Your task to perform on an android device: change notifications settings Image 0: 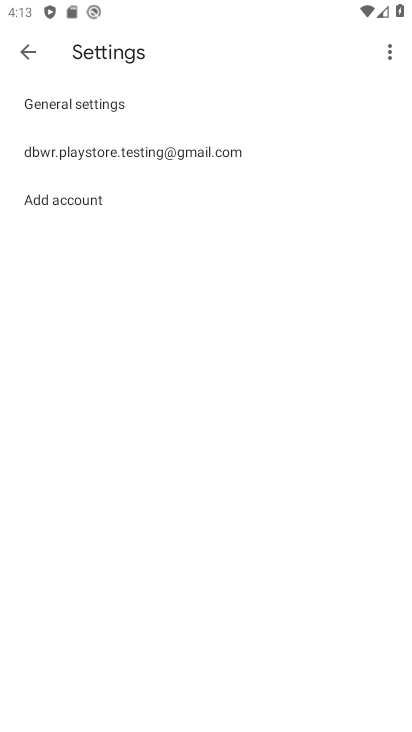
Step 0: press home button
Your task to perform on an android device: change notifications settings Image 1: 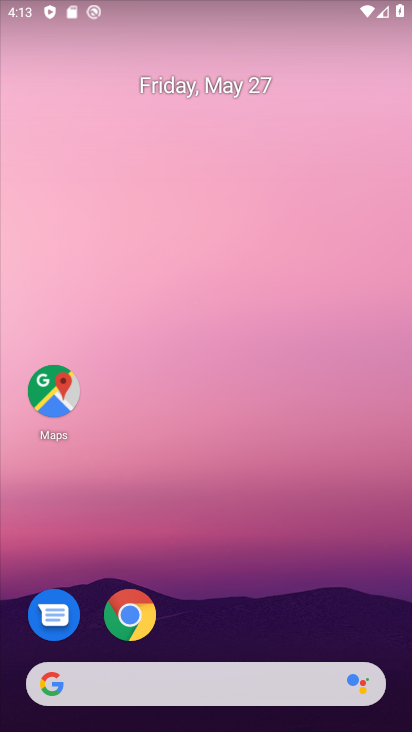
Step 1: drag from (280, 583) to (243, 77)
Your task to perform on an android device: change notifications settings Image 2: 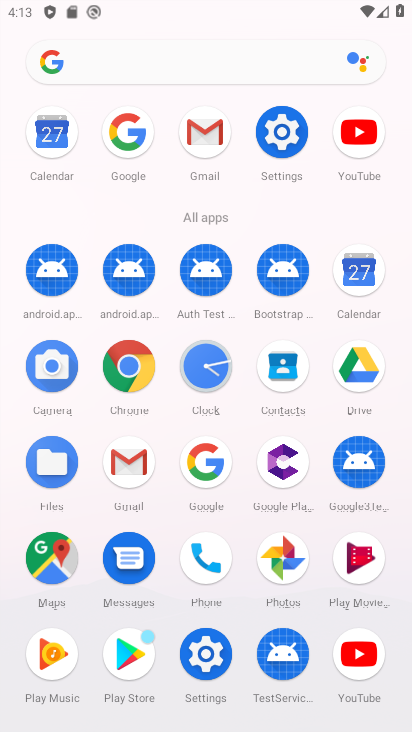
Step 2: click (275, 136)
Your task to perform on an android device: change notifications settings Image 3: 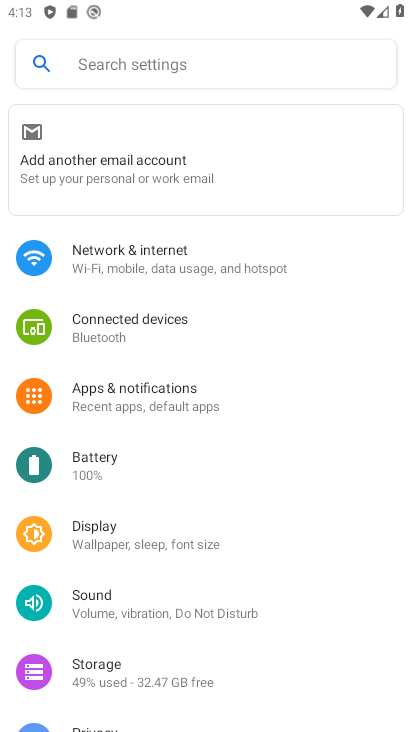
Step 3: click (193, 403)
Your task to perform on an android device: change notifications settings Image 4: 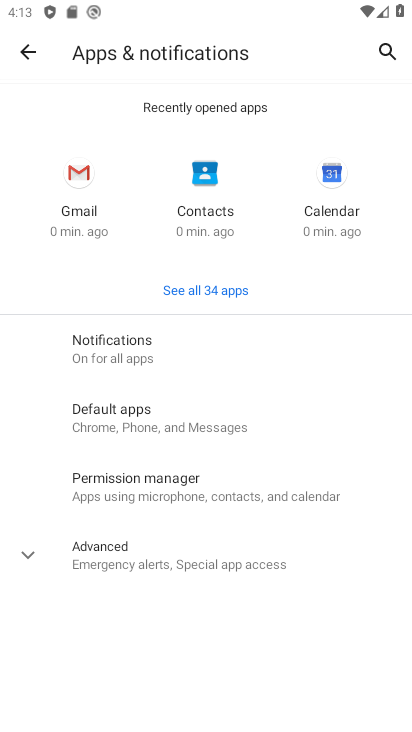
Step 4: click (175, 355)
Your task to perform on an android device: change notifications settings Image 5: 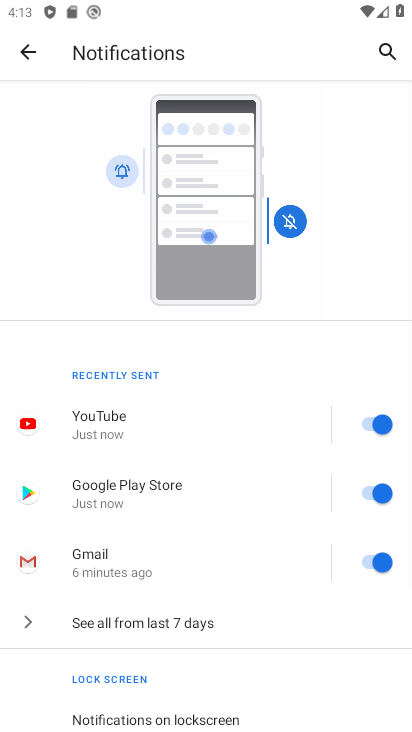
Step 5: click (374, 423)
Your task to perform on an android device: change notifications settings Image 6: 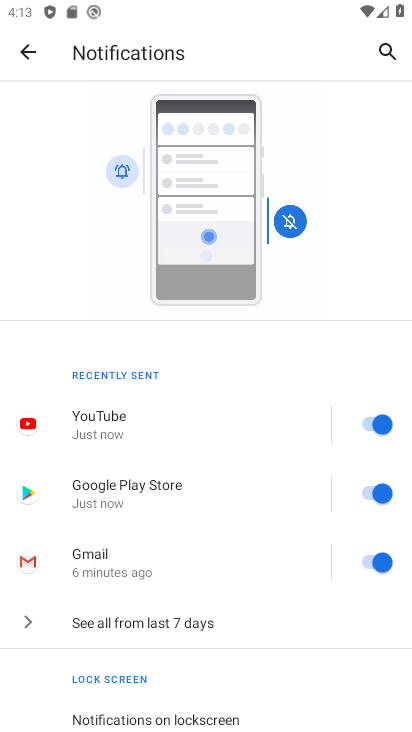
Step 6: drag from (367, 498) to (379, 550)
Your task to perform on an android device: change notifications settings Image 7: 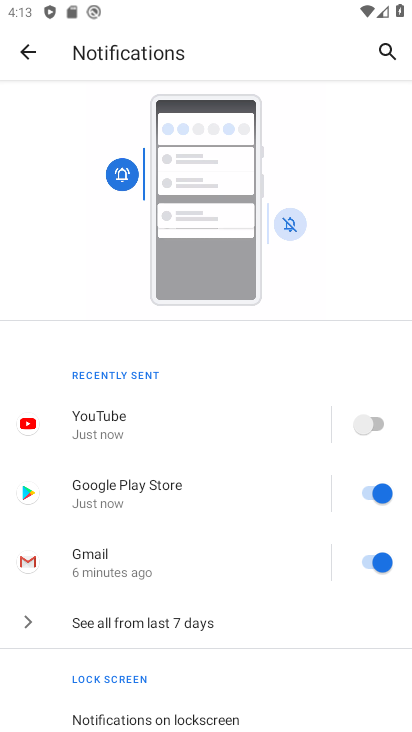
Step 7: click (382, 489)
Your task to perform on an android device: change notifications settings Image 8: 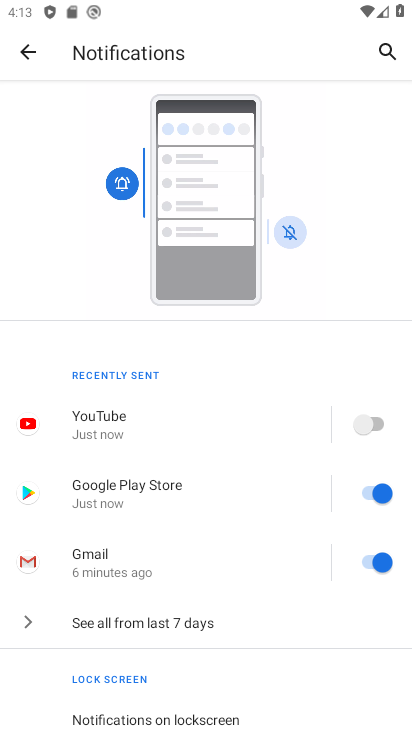
Step 8: click (383, 564)
Your task to perform on an android device: change notifications settings Image 9: 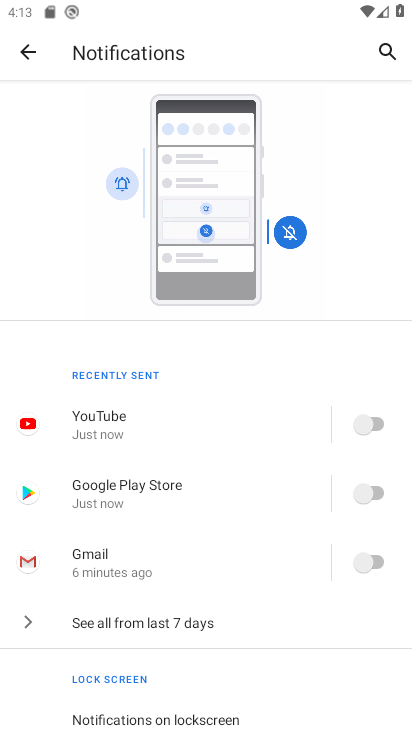
Step 9: task complete